Your task to perform on an android device: turn off location history Image 0: 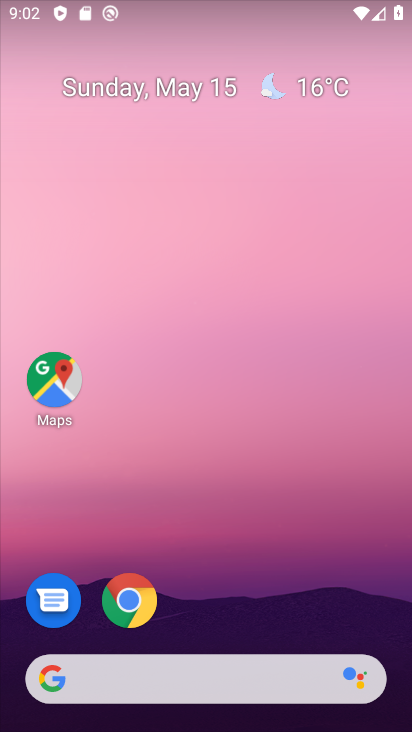
Step 0: drag from (201, 576) to (235, 119)
Your task to perform on an android device: turn off location history Image 1: 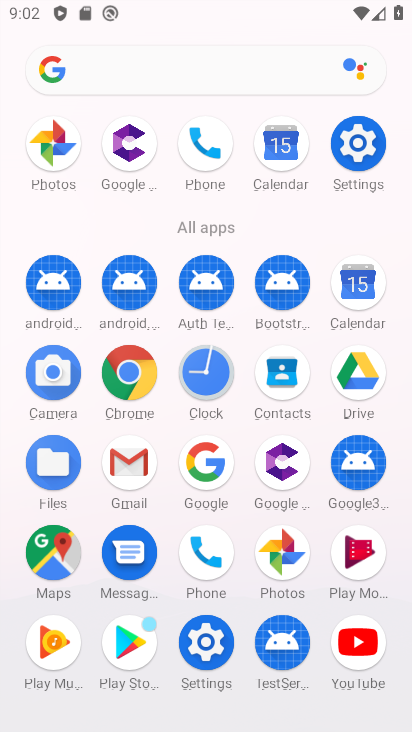
Step 1: click (366, 151)
Your task to perform on an android device: turn off location history Image 2: 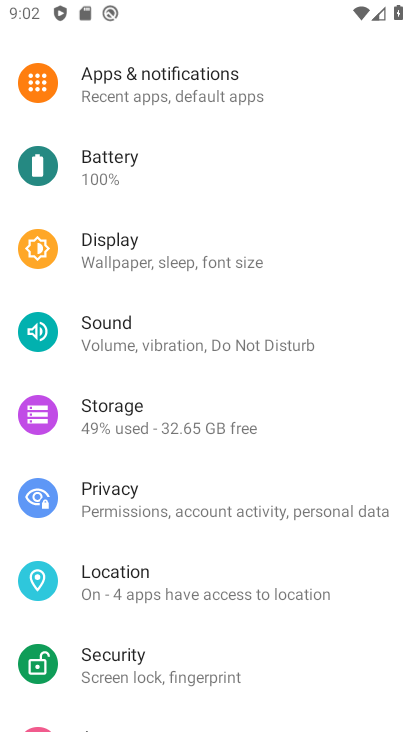
Step 2: click (226, 590)
Your task to perform on an android device: turn off location history Image 3: 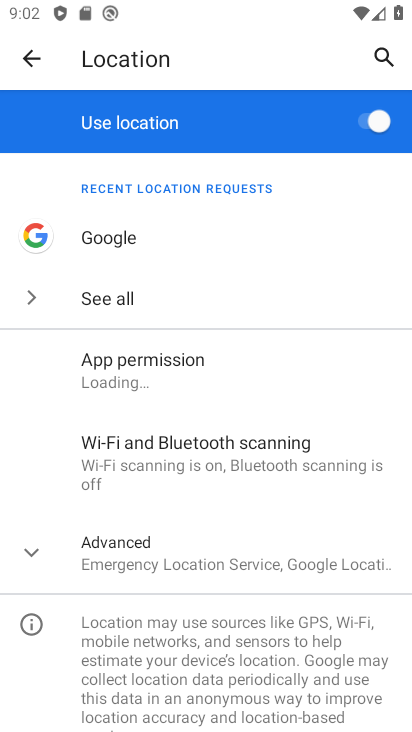
Step 3: click (26, 551)
Your task to perform on an android device: turn off location history Image 4: 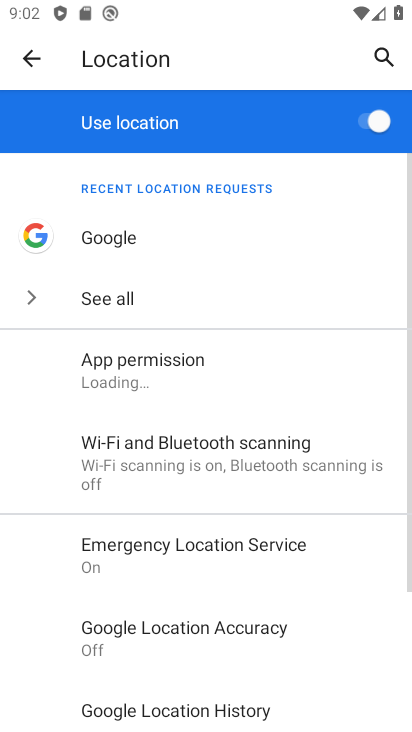
Step 4: click (207, 642)
Your task to perform on an android device: turn off location history Image 5: 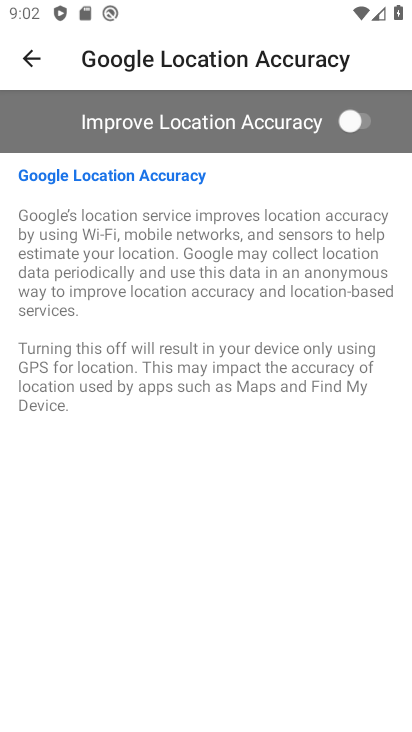
Step 5: task complete